Your task to perform on an android device: delete the emails in spam in the gmail app Image 0: 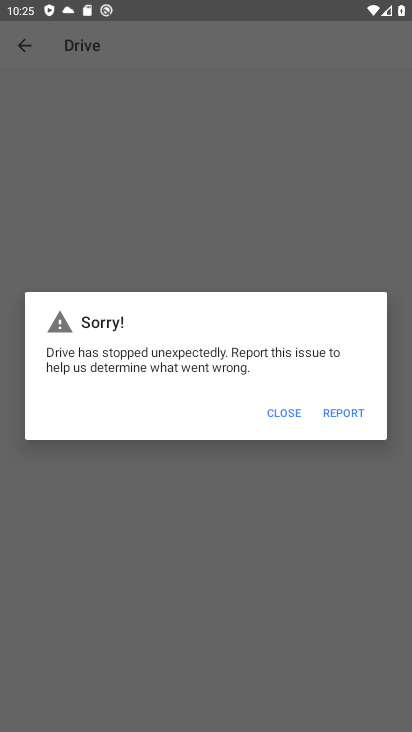
Step 0: press home button
Your task to perform on an android device: delete the emails in spam in the gmail app Image 1: 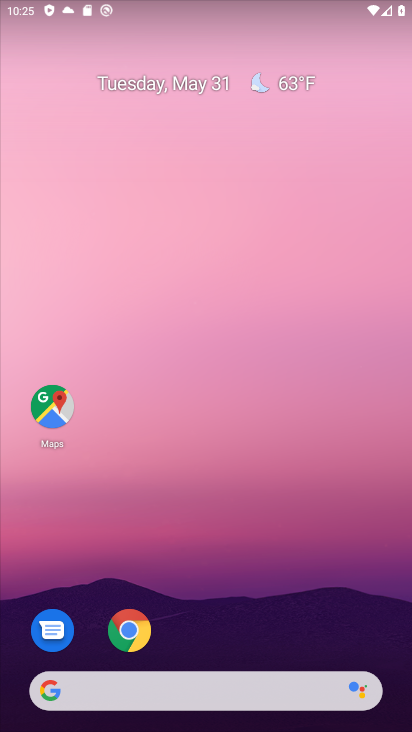
Step 1: drag from (222, 639) to (189, 65)
Your task to perform on an android device: delete the emails in spam in the gmail app Image 2: 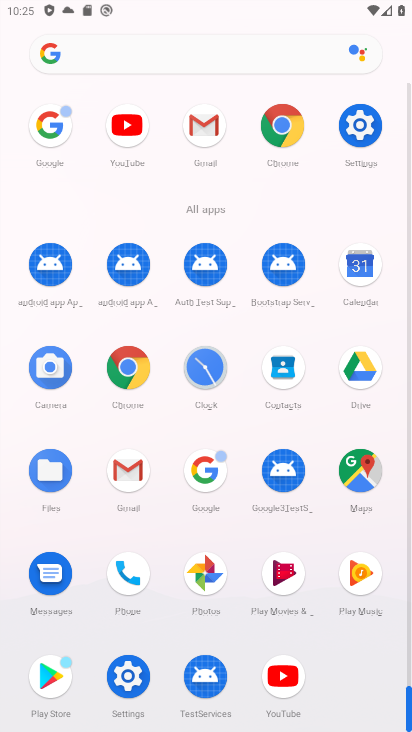
Step 2: click (124, 484)
Your task to perform on an android device: delete the emails in spam in the gmail app Image 3: 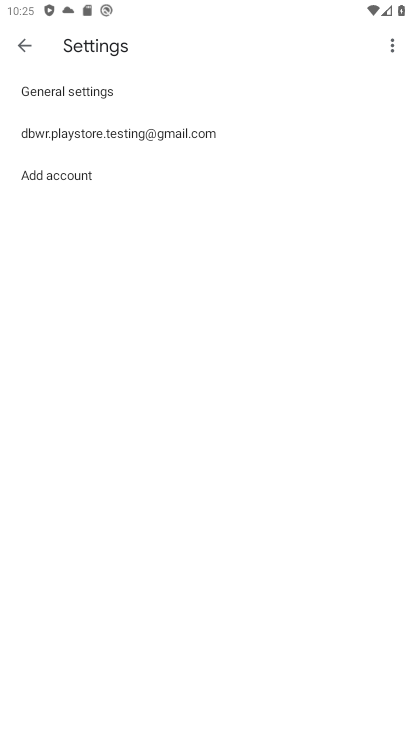
Step 3: click (32, 46)
Your task to perform on an android device: delete the emails in spam in the gmail app Image 4: 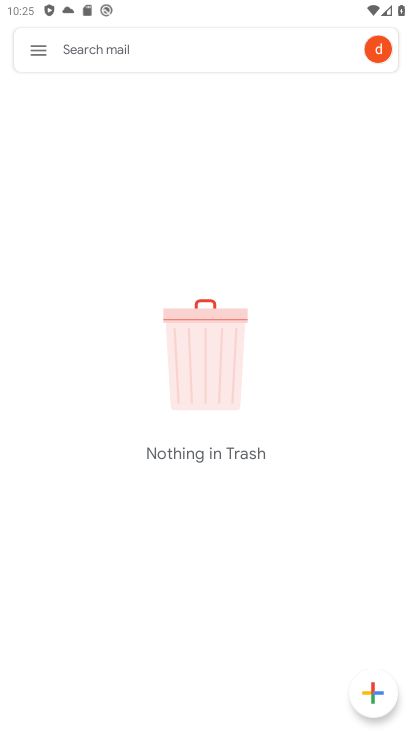
Step 4: click (40, 50)
Your task to perform on an android device: delete the emails in spam in the gmail app Image 5: 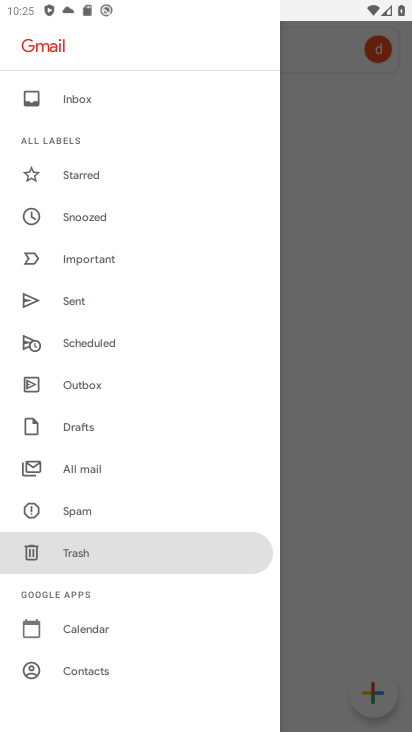
Step 5: click (103, 513)
Your task to perform on an android device: delete the emails in spam in the gmail app Image 6: 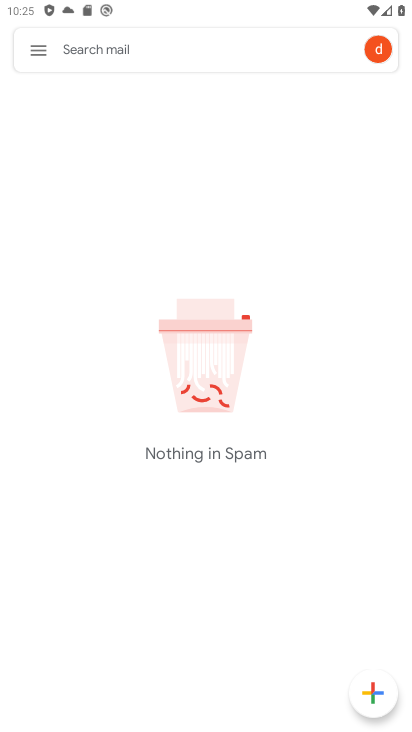
Step 6: task complete